Your task to perform on an android device: Open Android settings Image 0: 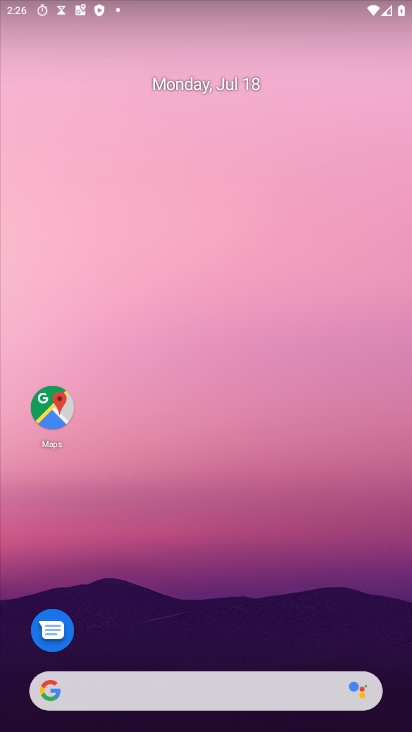
Step 0: drag from (268, 450) to (263, 11)
Your task to perform on an android device: Open Android settings Image 1: 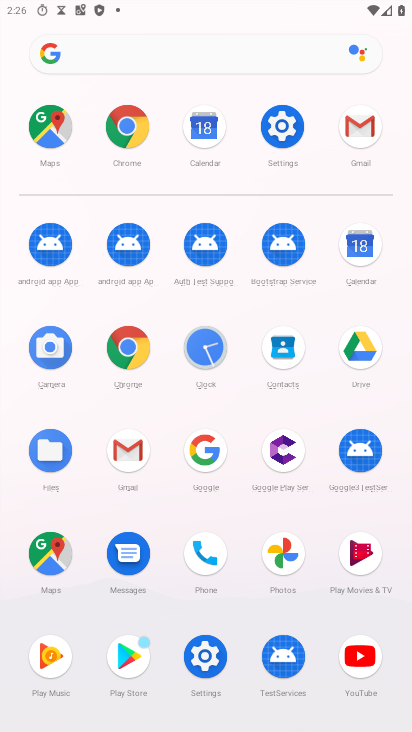
Step 1: click (291, 109)
Your task to perform on an android device: Open Android settings Image 2: 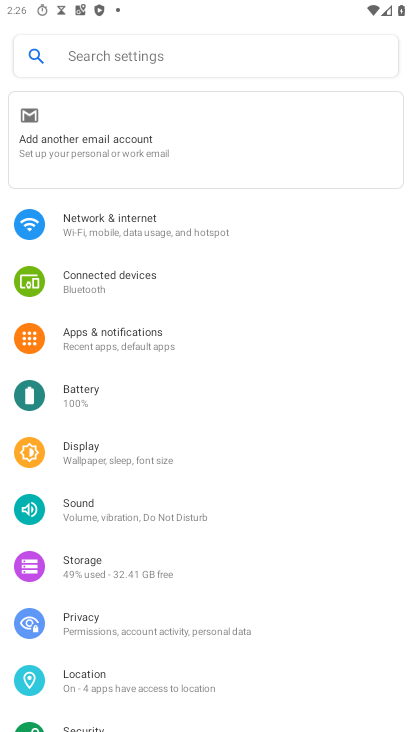
Step 2: drag from (118, 704) to (157, 118)
Your task to perform on an android device: Open Android settings Image 3: 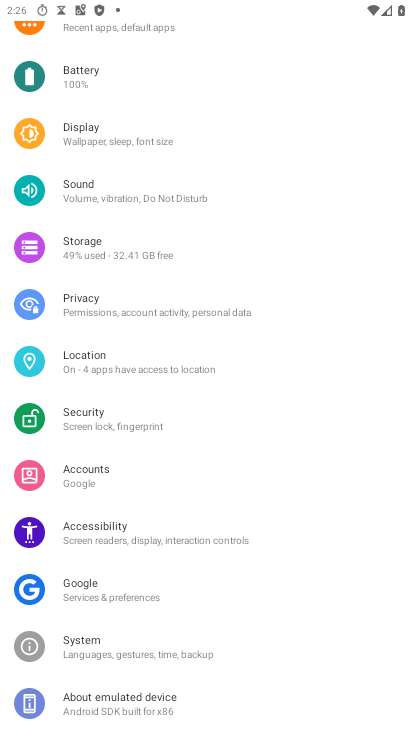
Step 3: click (134, 697)
Your task to perform on an android device: Open Android settings Image 4: 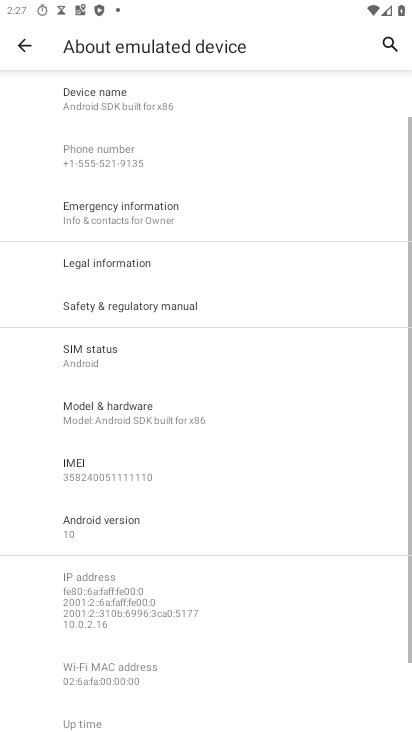
Step 4: task complete